Your task to perform on an android device: turn on sleep mode Image 0: 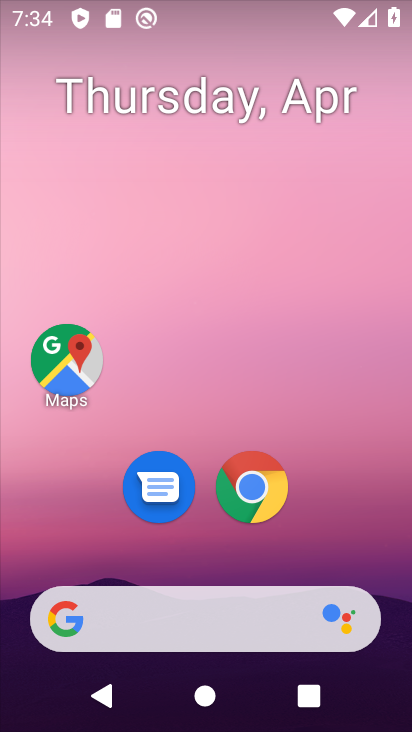
Step 0: drag from (375, 514) to (196, 106)
Your task to perform on an android device: turn on sleep mode Image 1: 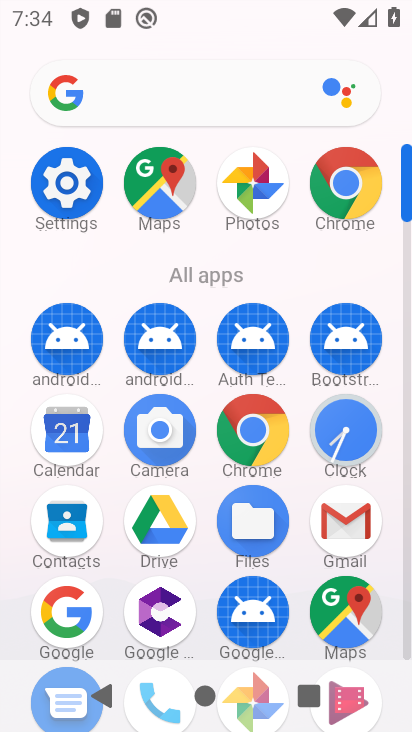
Step 1: click (78, 179)
Your task to perform on an android device: turn on sleep mode Image 2: 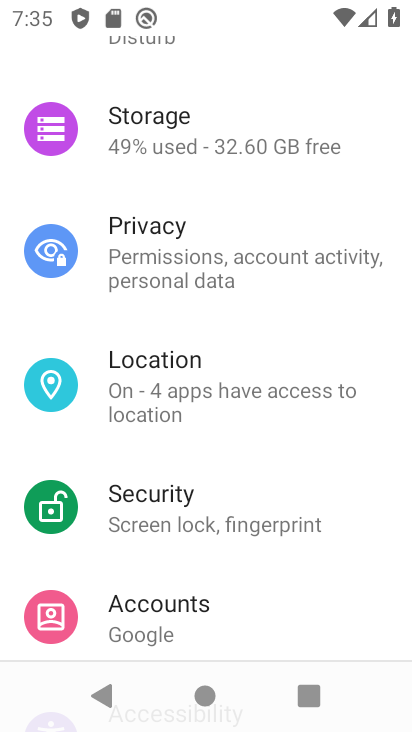
Step 2: task complete